Your task to perform on an android device: Go to wifi settings Image 0: 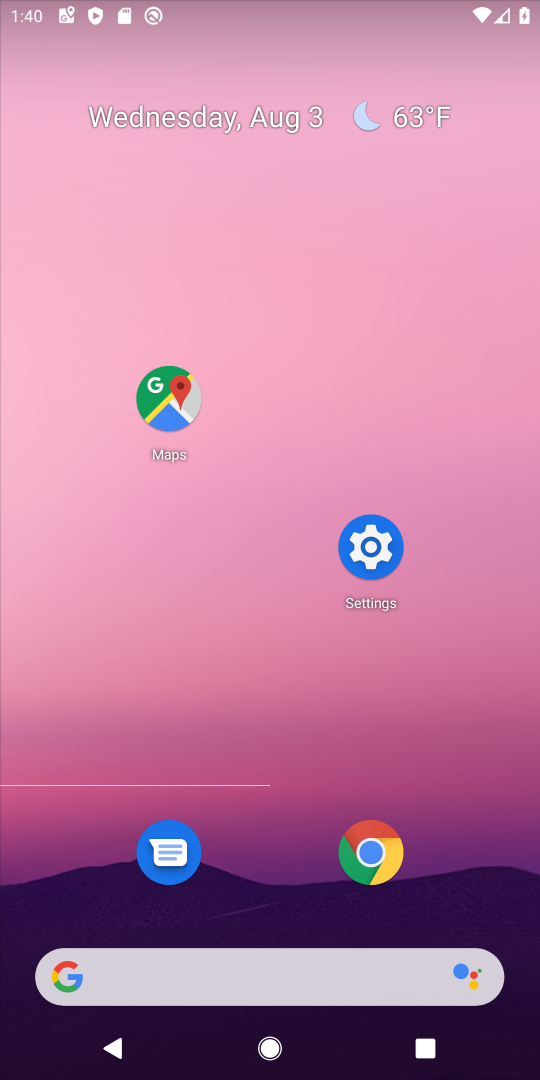
Step 0: press home button
Your task to perform on an android device: Go to wifi settings Image 1: 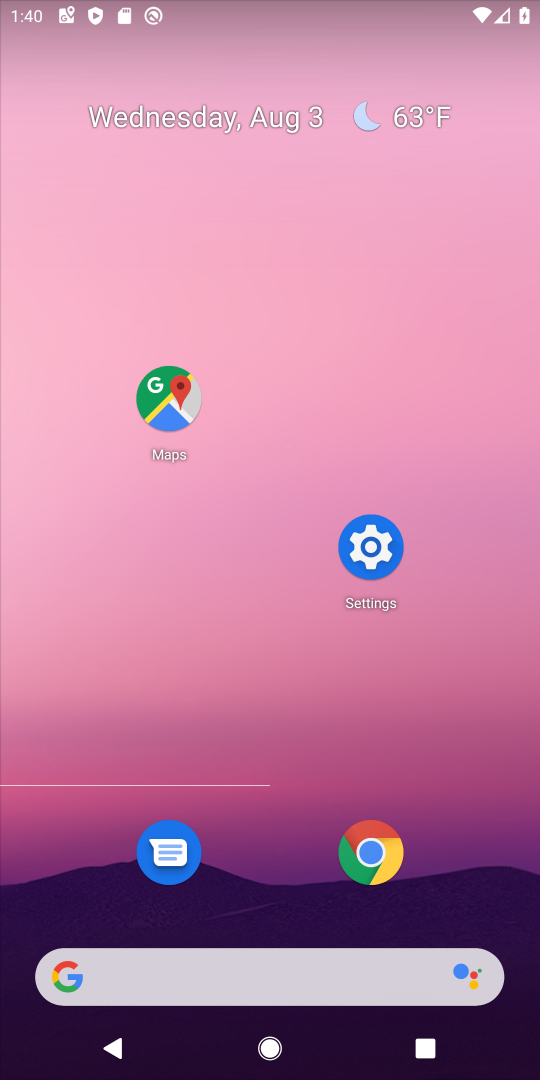
Step 1: drag from (245, 984) to (445, 233)
Your task to perform on an android device: Go to wifi settings Image 2: 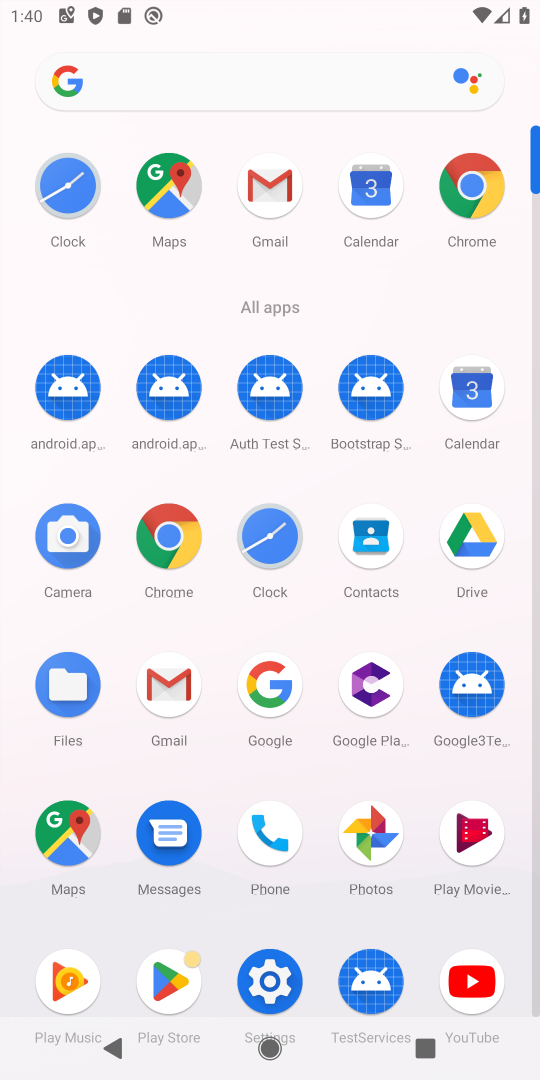
Step 2: click (269, 983)
Your task to perform on an android device: Go to wifi settings Image 3: 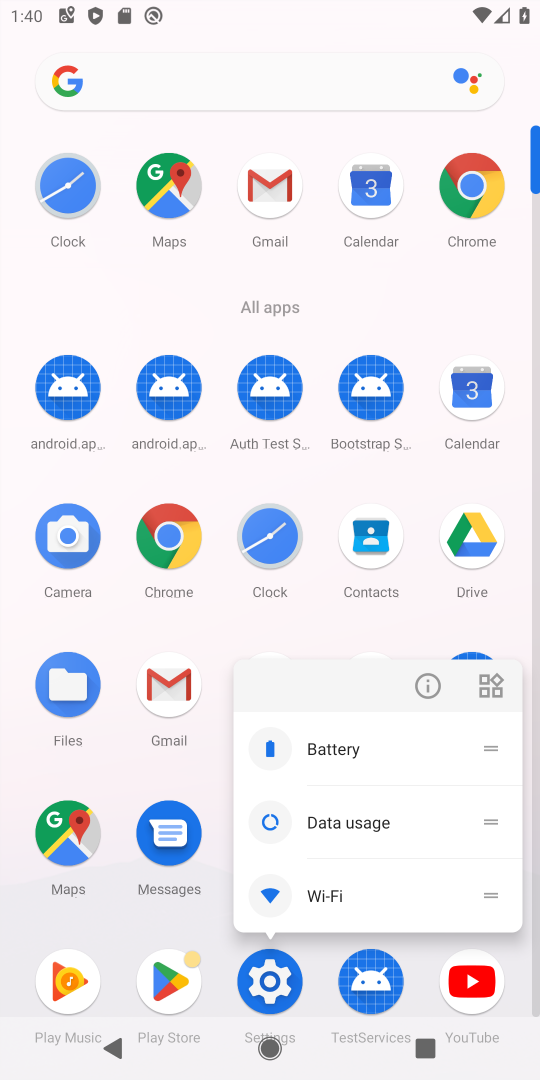
Step 3: click (269, 983)
Your task to perform on an android device: Go to wifi settings Image 4: 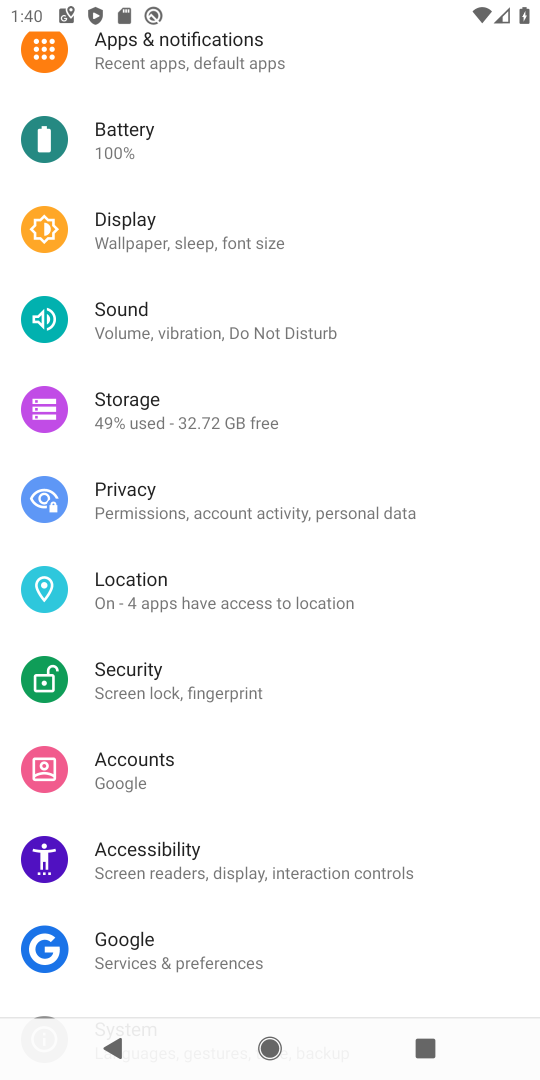
Step 4: drag from (433, 128) to (405, 844)
Your task to perform on an android device: Go to wifi settings Image 5: 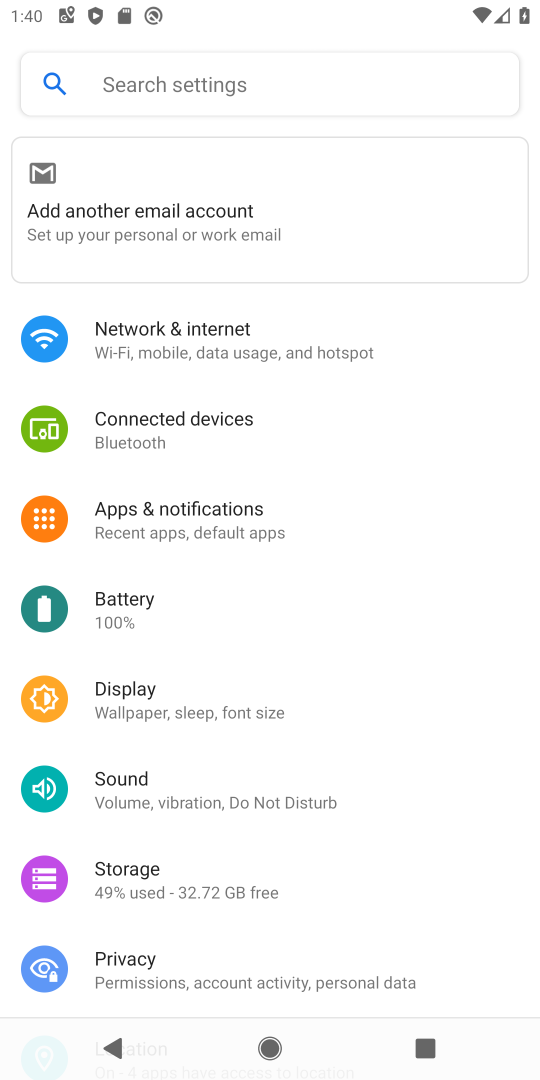
Step 5: click (180, 349)
Your task to perform on an android device: Go to wifi settings Image 6: 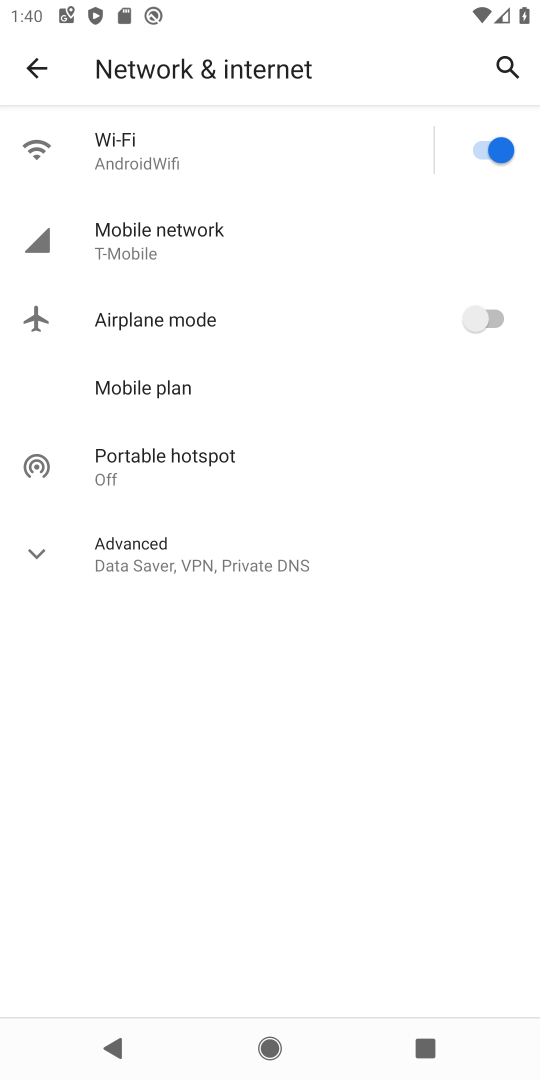
Step 6: click (132, 158)
Your task to perform on an android device: Go to wifi settings Image 7: 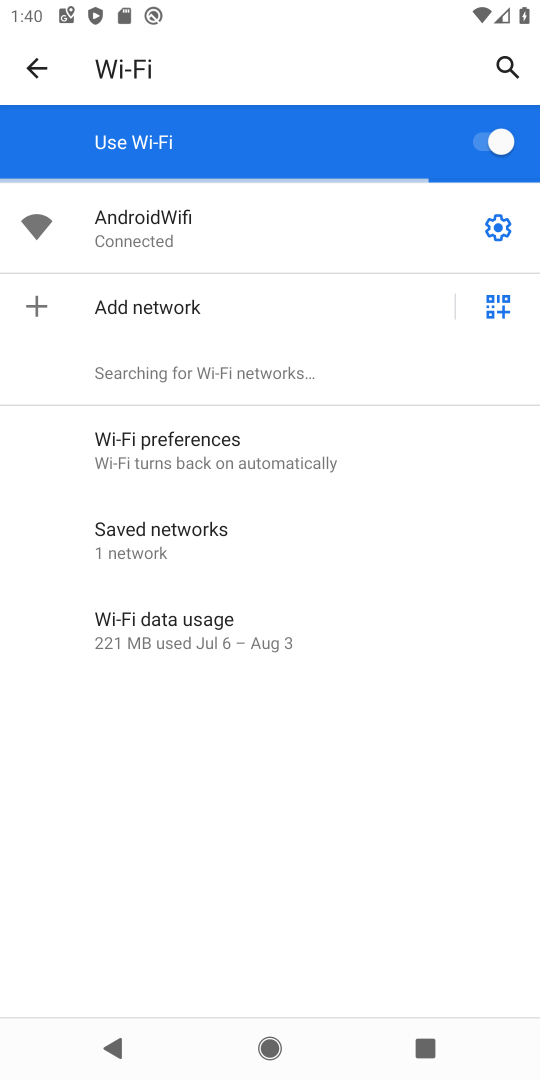
Step 7: task complete